Your task to perform on an android device: allow notifications from all sites in the chrome app Image 0: 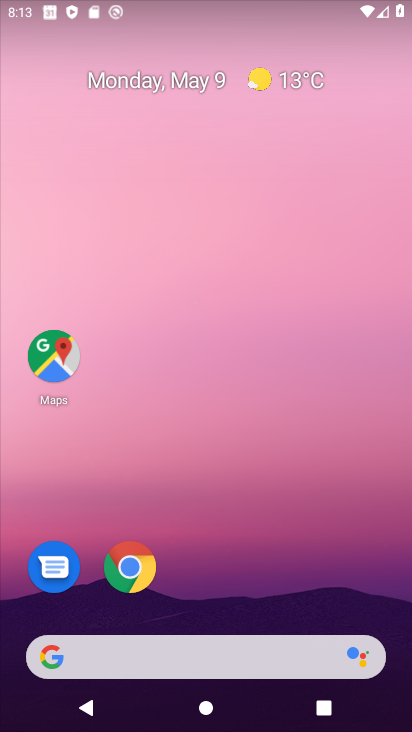
Step 0: click (142, 565)
Your task to perform on an android device: allow notifications from all sites in the chrome app Image 1: 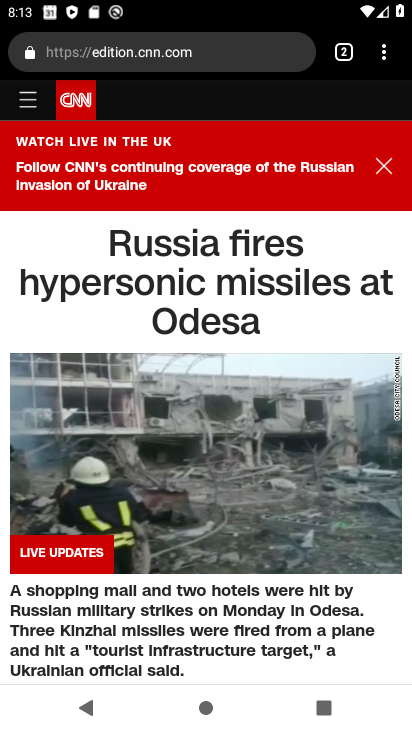
Step 1: click (387, 55)
Your task to perform on an android device: allow notifications from all sites in the chrome app Image 2: 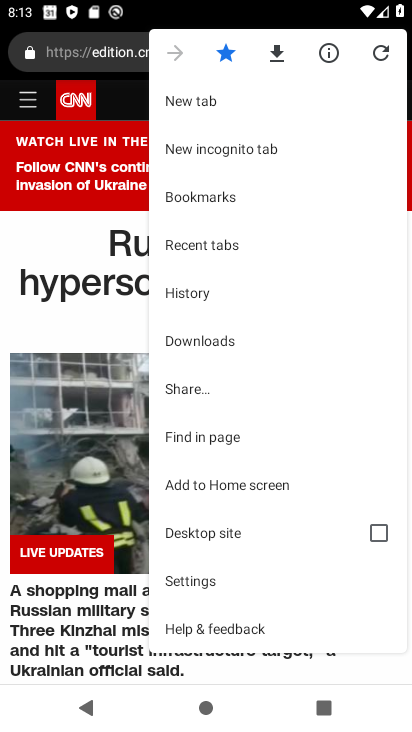
Step 2: click (201, 577)
Your task to perform on an android device: allow notifications from all sites in the chrome app Image 3: 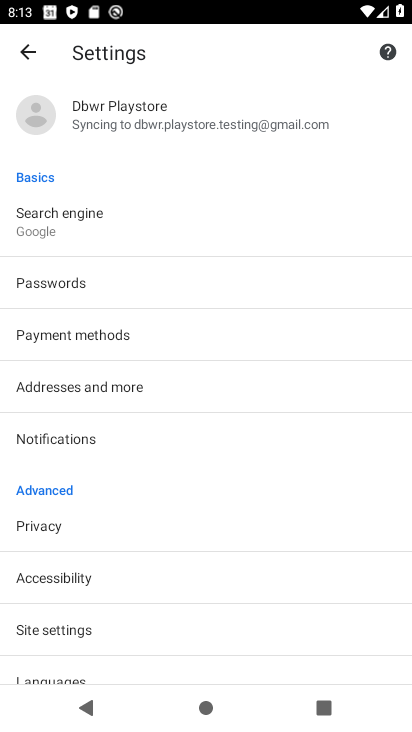
Step 3: click (213, 437)
Your task to perform on an android device: allow notifications from all sites in the chrome app Image 4: 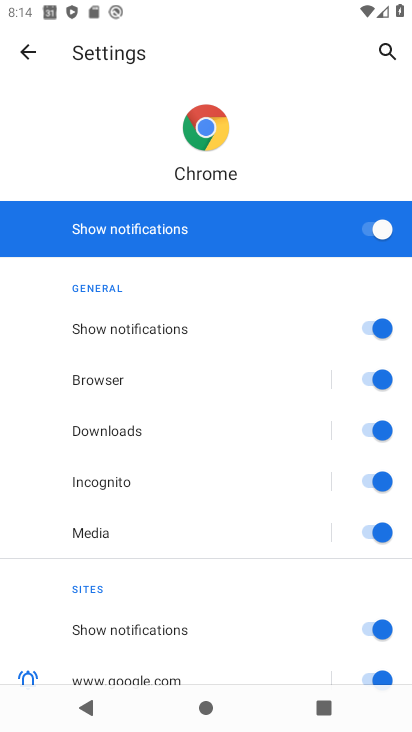
Step 4: task complete